Your task to perform on an android device: Show me recent news Image 0: 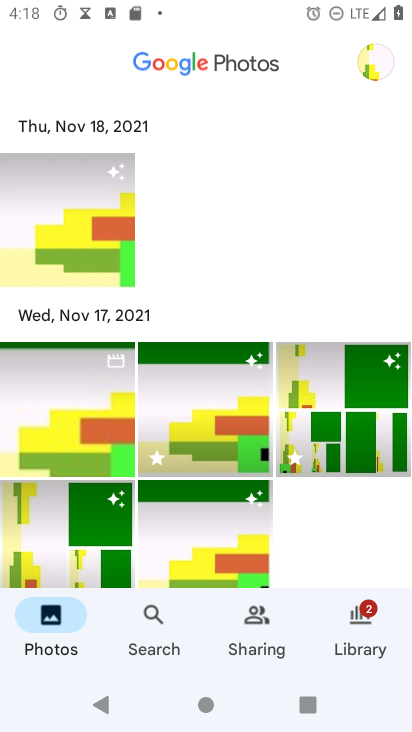
Step 0: press home button
Your task to perform on an android device: Show me recent news Image 1: 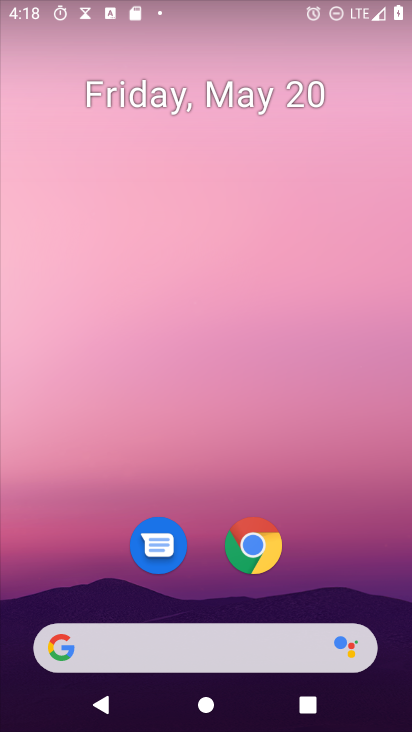
Step 1: drag from (334, 536) to (363, 30)
Your task to perform on an android device: Show me recent news Image 2: 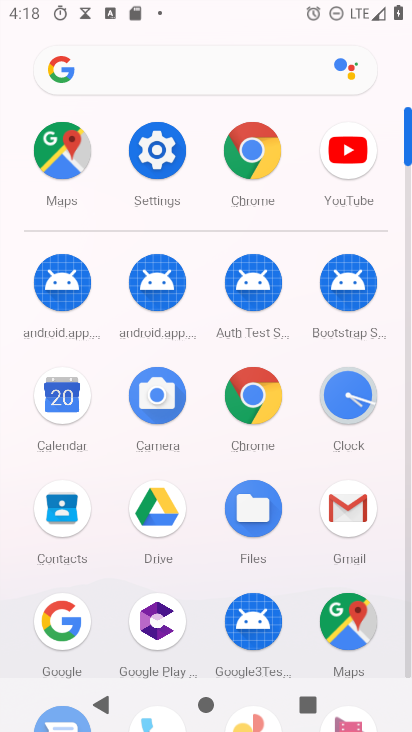
Step 2: click (236, 386)
Your task to perform on an android device: Show me recent news Image 3: 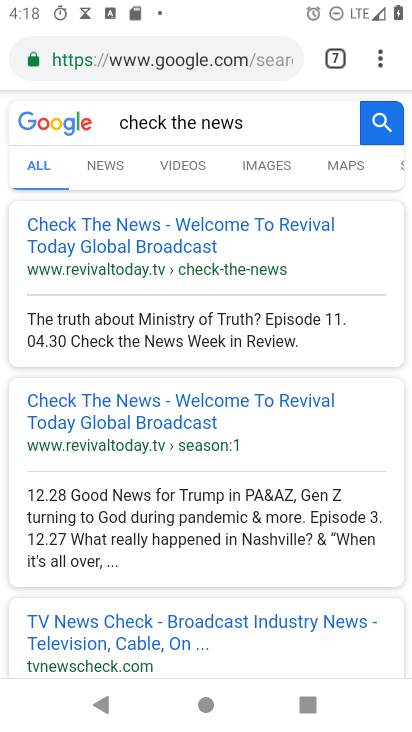
Step 3: click (235, 40)
Your task to perform on an android device: Show me recent news Image 4: 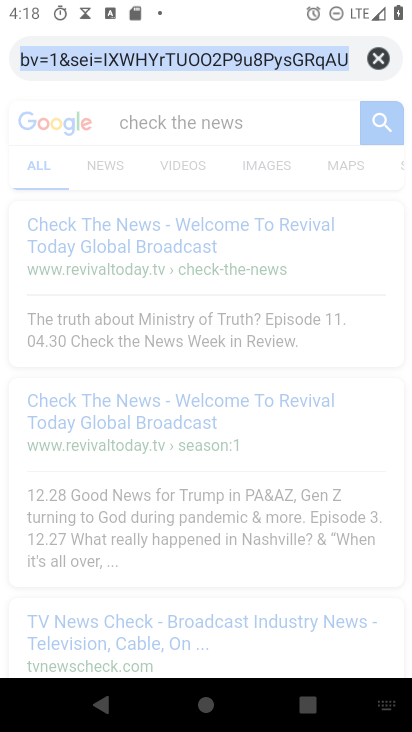
Step 4: click (372, 63)
Your task to perform on an android device: Show me recent news Image 5: 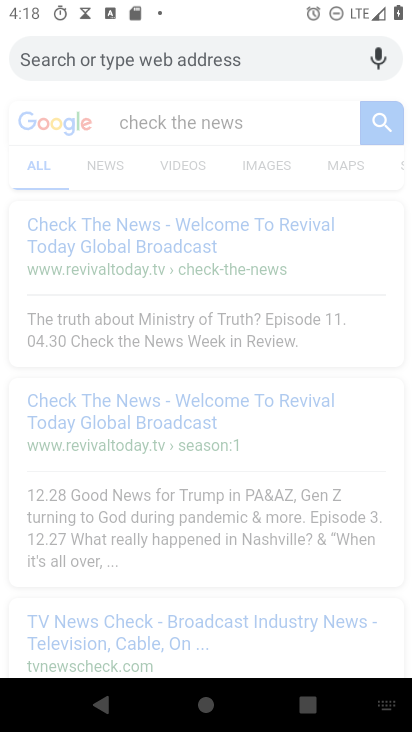
Step 5: type "recent news"
Your task to perform on an android device: Show me recent news Image 6: 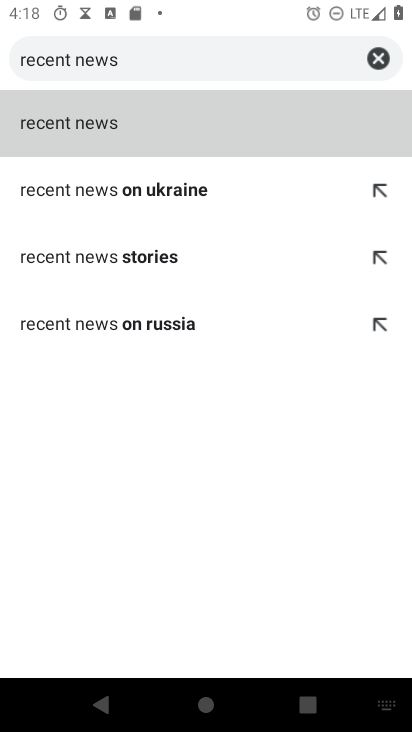
Step 6: click (118, 117)
Your task to perform on an android device: Show me recent news Image 7: 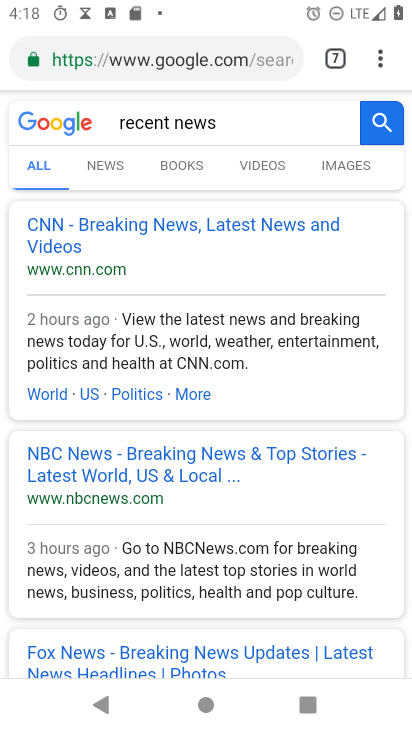
Step 7: task complete